Your task to perform on an android device: check the backup settings in the google photos Image 0: 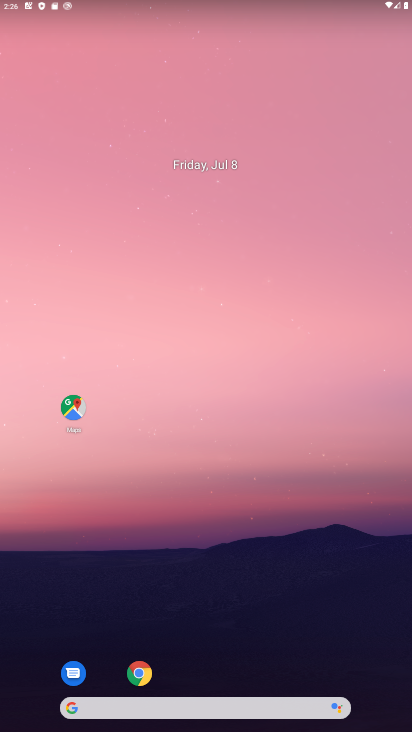
Step 0: drag from (213, 673) to (216, 362)
Your task to perform on an android device: check the backup settings in the google photos Image 1: 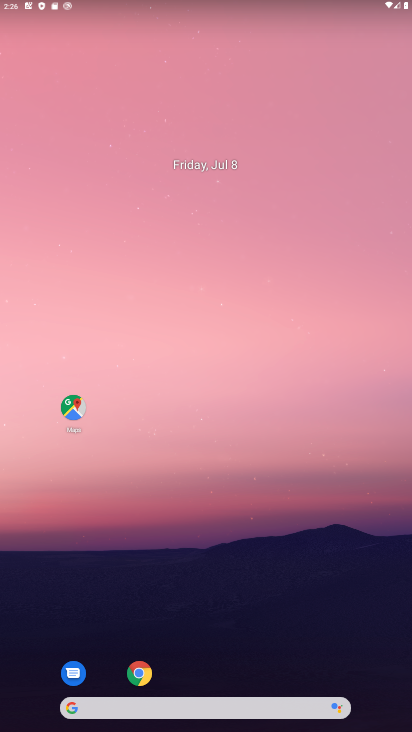
Step 1: drag from (223, 698) to (236, 258)
Your task to perform on an android device: check the backup settings in the google photos Image 2: 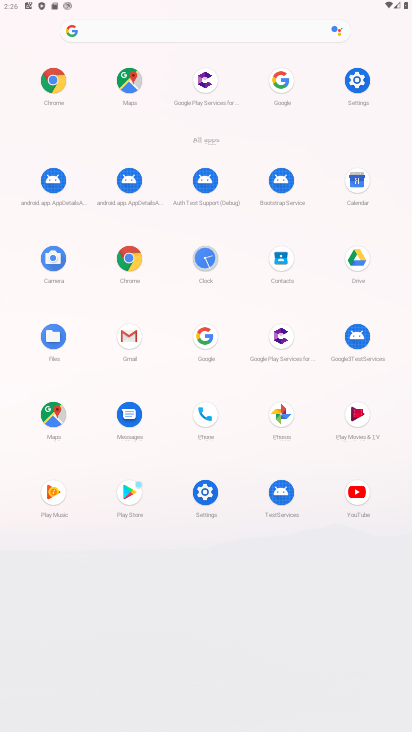
Step 2: click (287, 410)
Your task to perform on an android device: check the backup settings in the google photos Image 3: 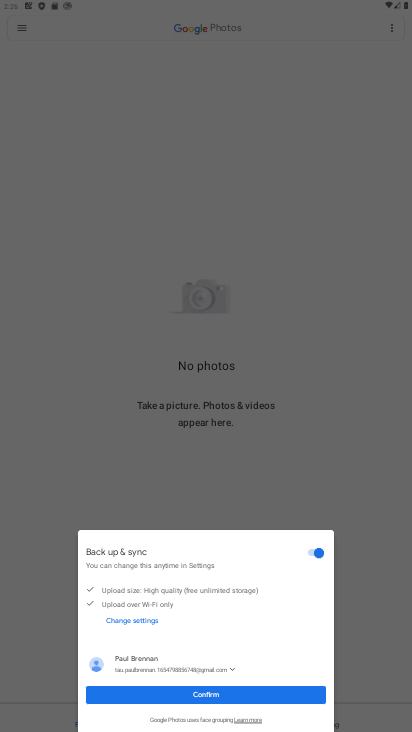
Step 3: click (215, 698)
Your task to perform on an android device: check the backup settings in the google photos Image 4: 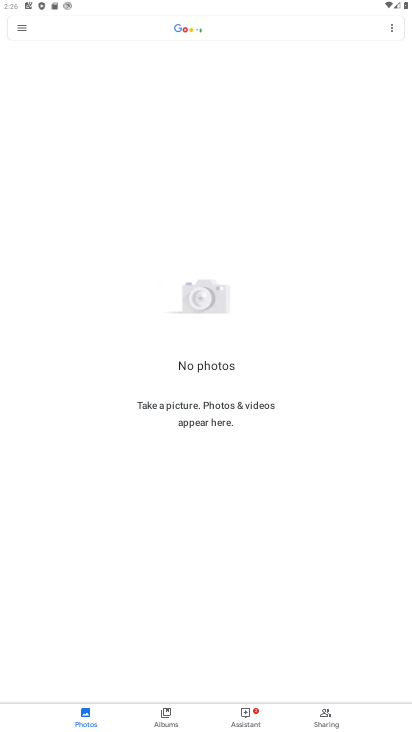
Step 4: click (22, 22)
Your task to perform on an android device: check the backup settings in the google photos Image 5: 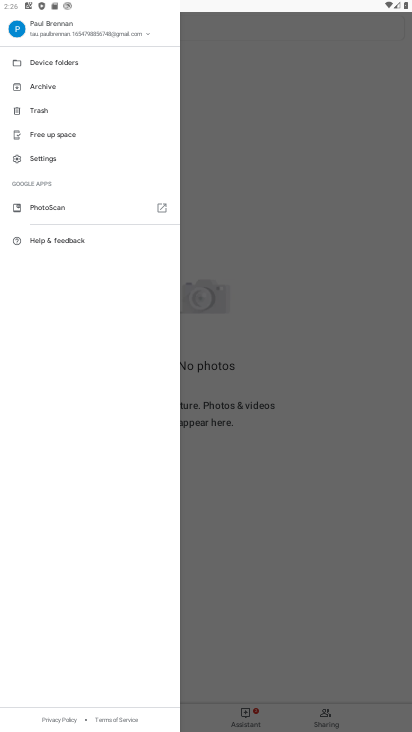
Step 5: click (57, 156)
Your task to perform on an android device: check the backup settings in the google photos Image 6: 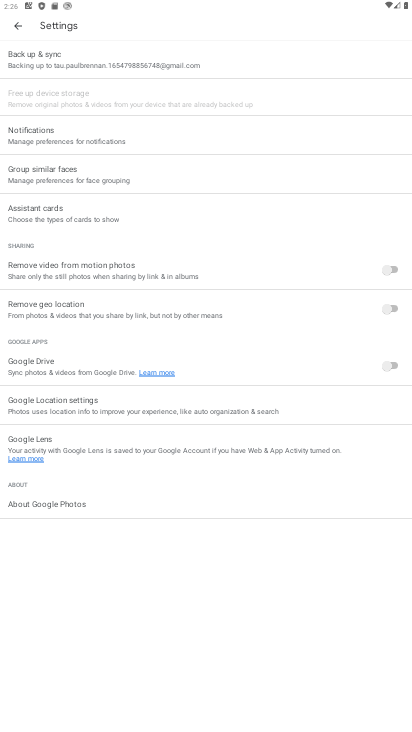
Step 6: click (123, 61)
Your task to perform on an android device: check the backup settings in the google photos Image 7: 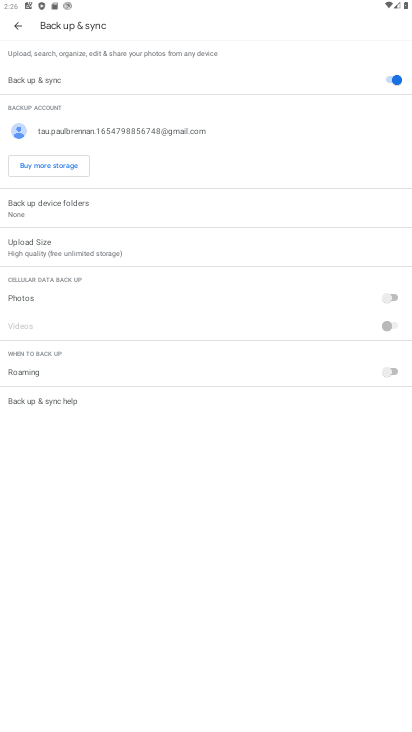
Step 7: task complete